Your task to perform on an android device: check storage Image 0: 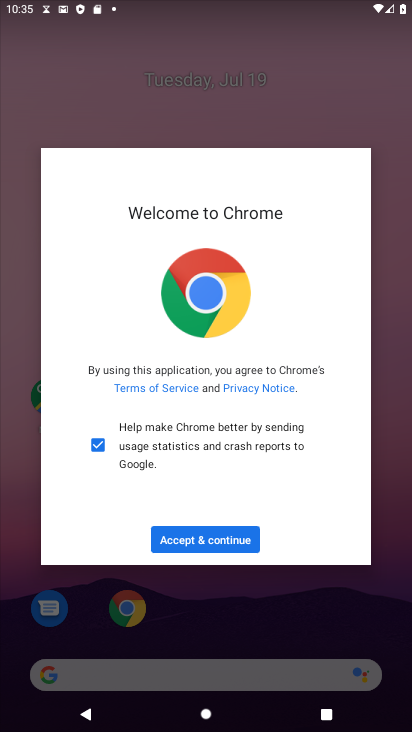
Step 0: press home button
Your task to perform on an android device: check storage Image 1: 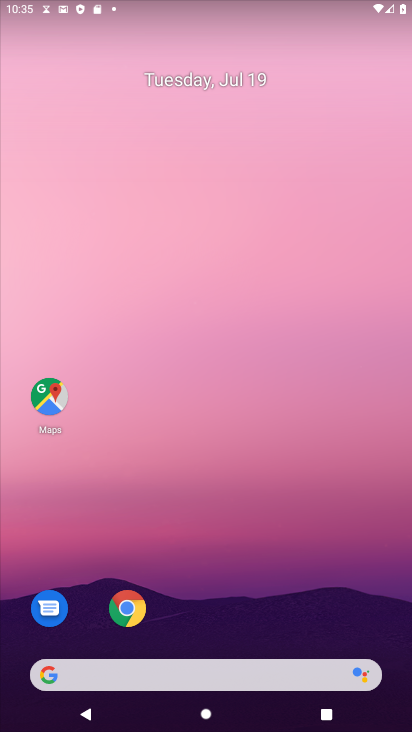
Step 1: drag from (227, 612) to (256, 1)
Your task to perform on an android device: check storage Image 2: 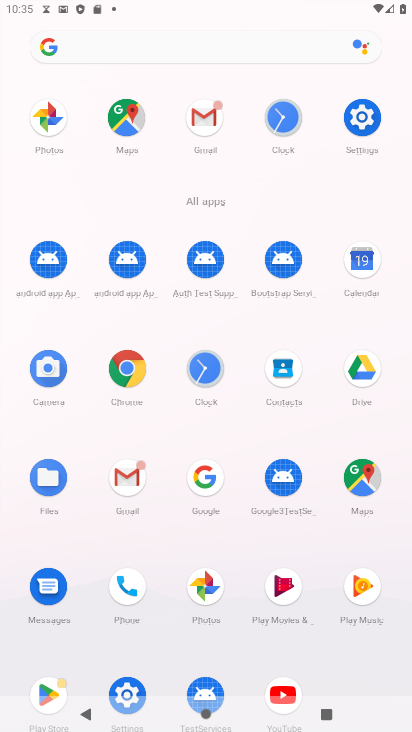
Step 2: click (358, 102)
Your task to perform on an android device: check storage Image 3: 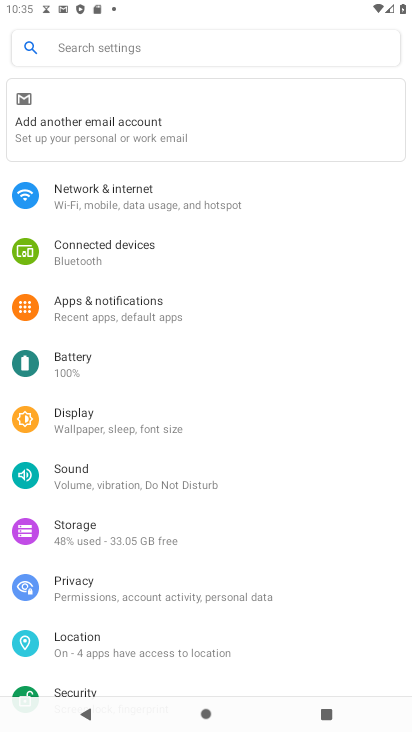
Step 3: click (51, 541)
Your task to perform on an android device: check storage Image 4: 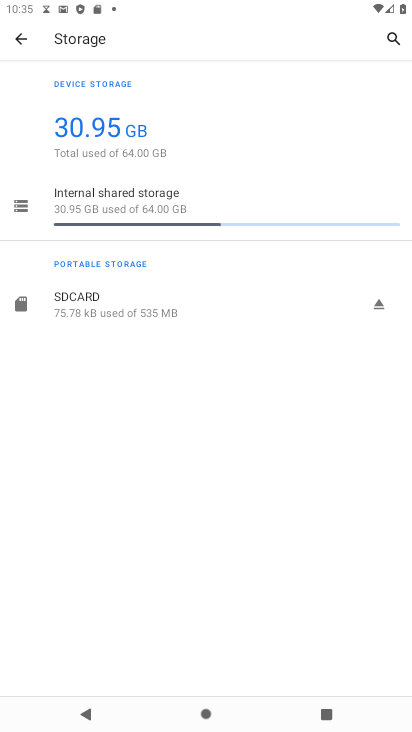
Step 4: task complete